Your task to perform on an android device: Open maps Image 0: 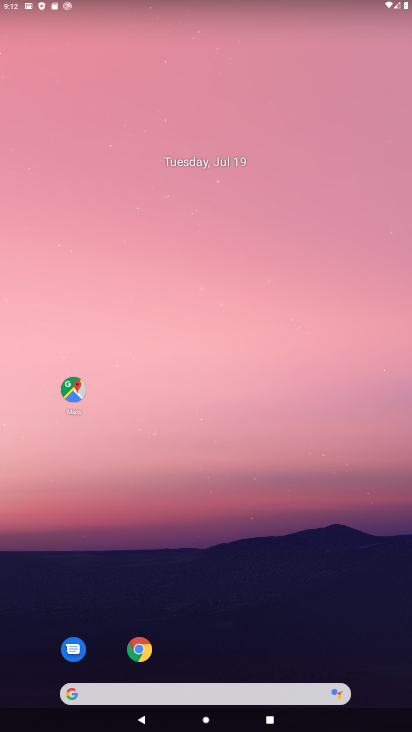
Step 0: drag from (337, 662) to (257, 100)
Your task to perform on an android device: Open maps Image 1: 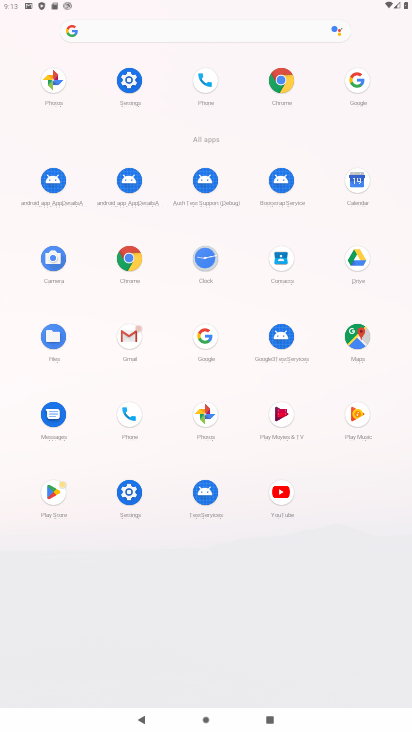
Step 1: click (361, 341)
Your task to perform on an android device: Open maps Image 2: 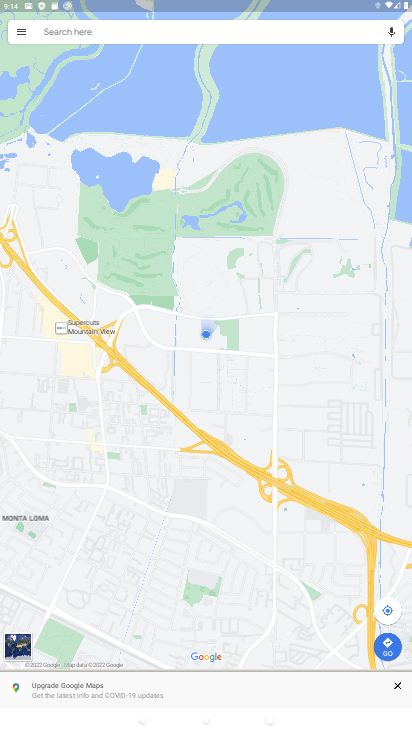
Step 2: task complete